Your task to perform on an android device: manage bookmarks in the chrome app Image 0: 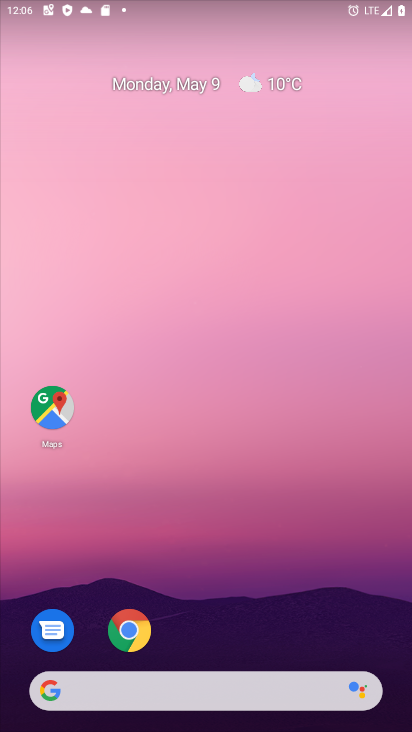
Step 0: drag from (335, 638) to (270, 92)
Your task to perform on an android device: manage bookmarks in the chrome app Image 1: 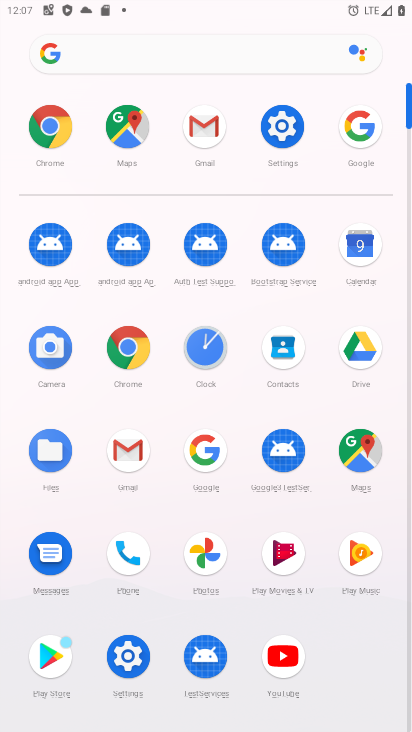
Step 1: click (137, 326)
Your task to perform on an android device: manage bookmarks in the chrome app Image 2: 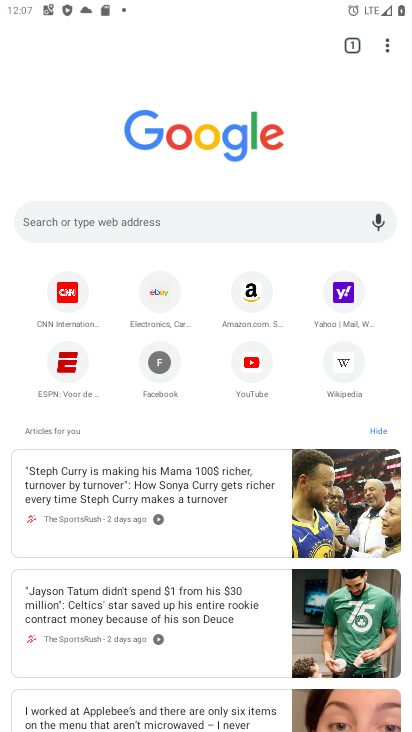
Step 2: task complete